Your task to perform on an android device: turn on wifi Image 0: 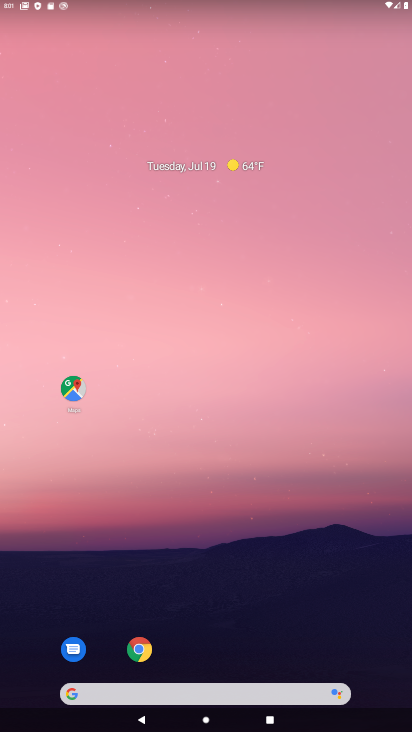
Step 0: drag from (181, 647) to (185, 175)
Your task to perform on an android device: turn on wifi Image 1: 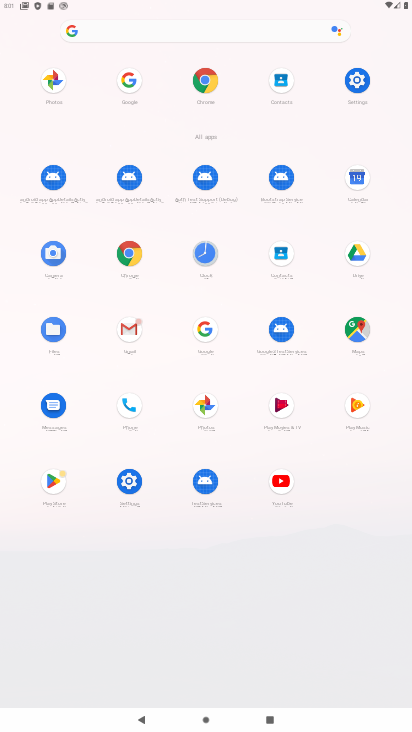
Step 1: click (344, 80)
Your task to perform on an android device: turn on wifi Image 2: 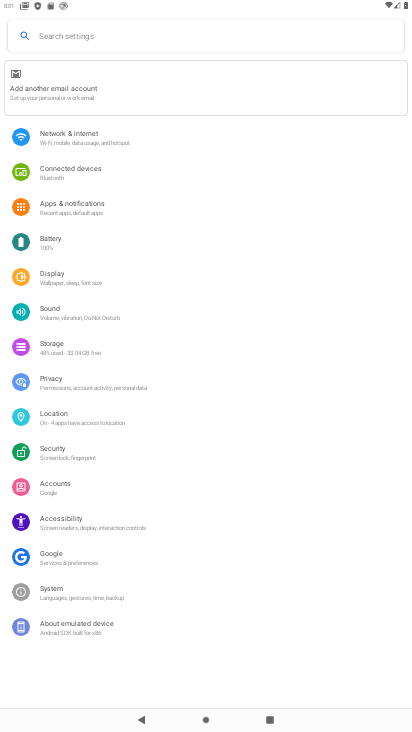
Step 2: click (92, 137)
Your task to perform on an android device: turn on wifi Image 3: 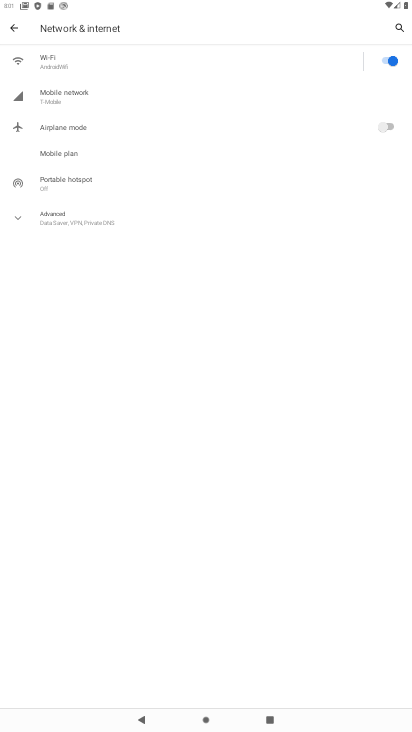
Step 3: task complete